Your task to perform on an android device: toggle pop-ups in chrome Image 0: 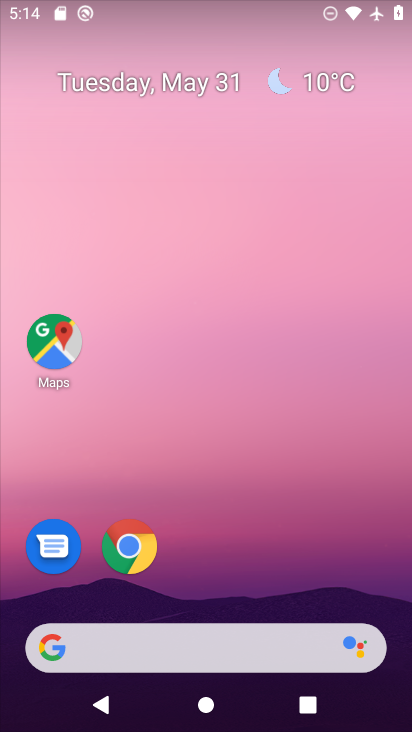
Step 0: click (146, 540)
Your task to perform on an android device: toggle pop-ups in chrome Image 1: 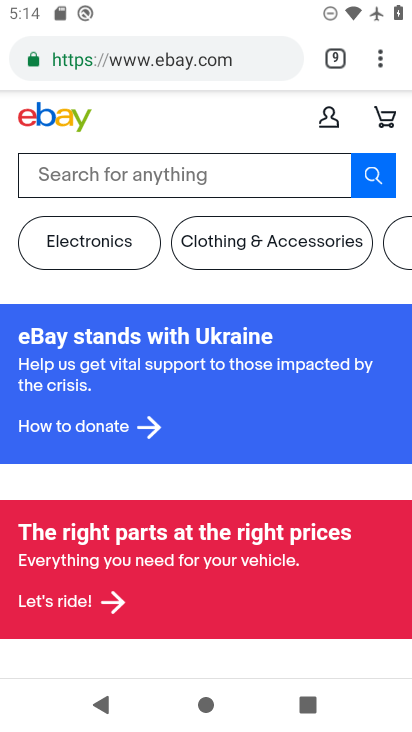
Step 1: click (380, 54)
Your task to perform on an android device: toggle pop-ups in chrome Image 2: 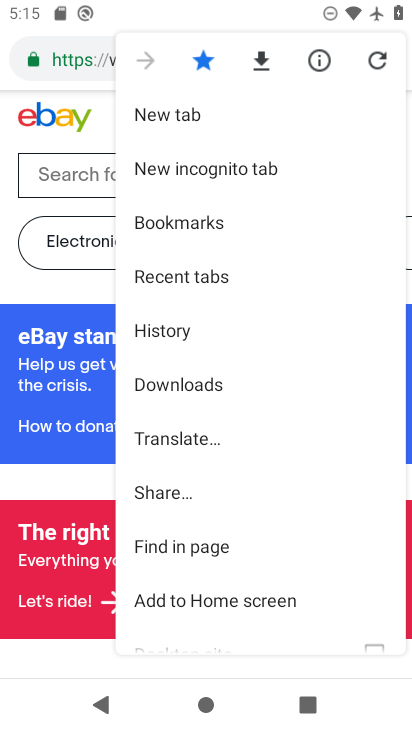
Step 2: drag from (228, 539) to (181, 162)
Your task to perform on an android device: toggle pop-ups in chrome Image 3: 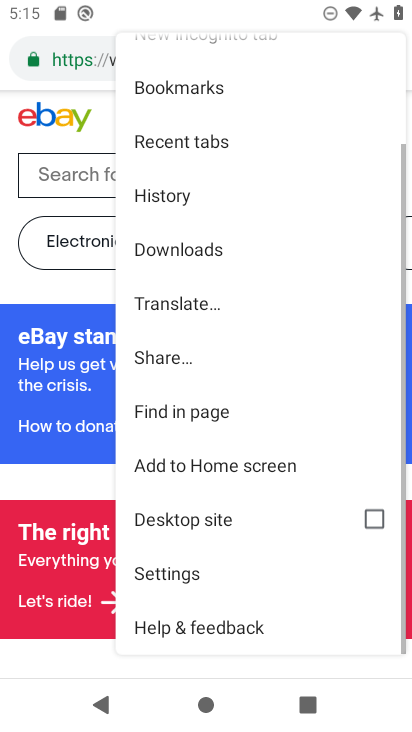
Step 3: click (209, 560)
Your task to perform on an android device: toggle pop-ups in chrome Image 4: 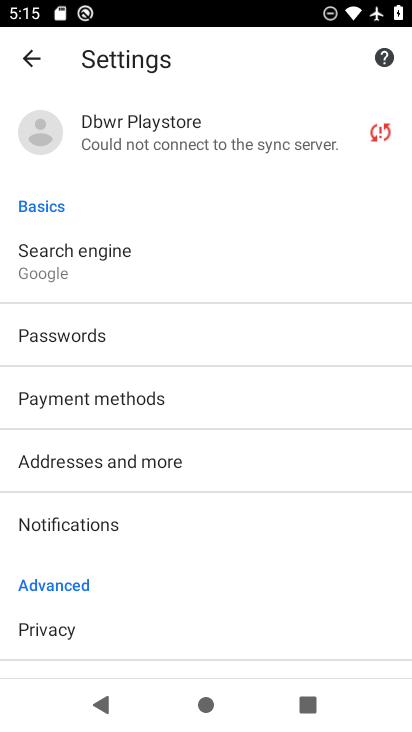
Step 4: drag from (222, 573) to (151, 60)
Your task to perform on an android device: toggle pop-ups in chrome Image 5: 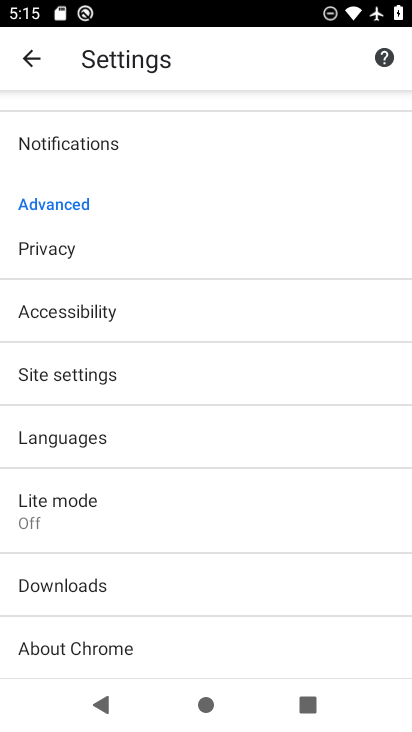
Step 5: click (109, 381)
Your task to perform on an android device: toggle pop-ups in chrome Image 6: 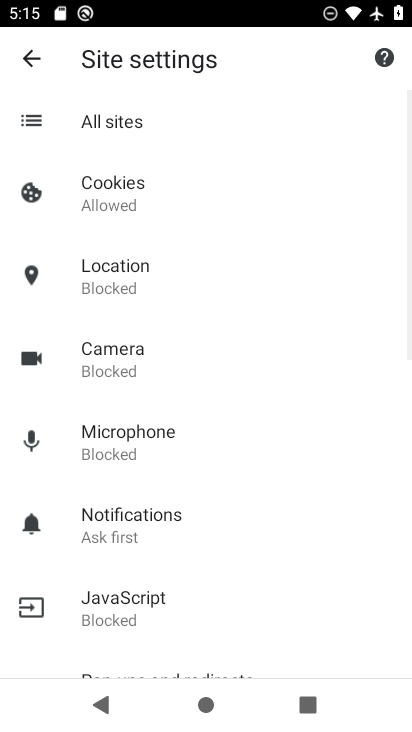
Step 6: drag from (222, 558) to (170, 134)
Your task to perform on an android device: toggle pop-ups in chrome Image 7: 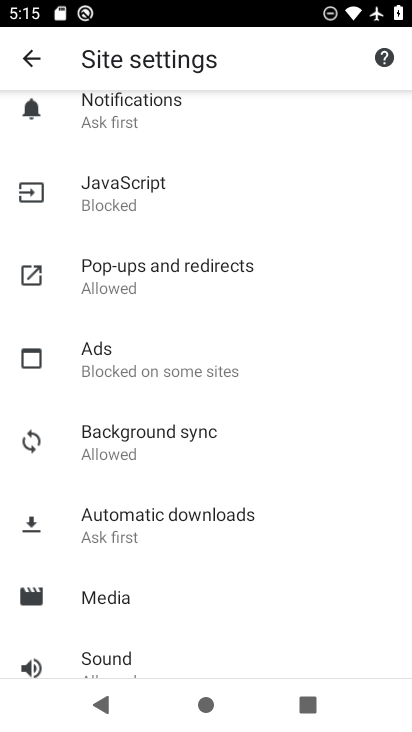
Step 7: click (161, 273)
Your task to perform on an android device: toggle pop-ups in chrome Image 8: 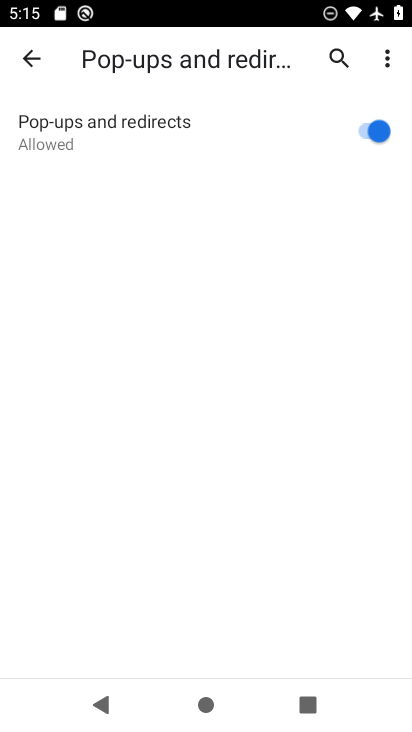
Step 8: click (367, 134)
Your task to perform on an android device: toggle pop-ups in chrome Image 9: 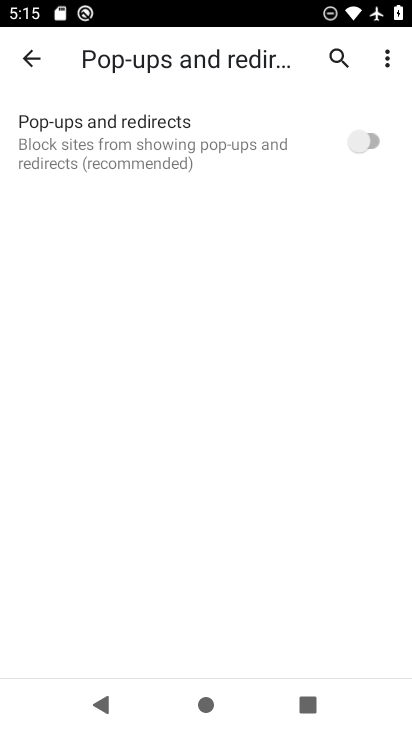
Step 9: task complete